Your task to perform on an android device: Open Chrome and go to the settings page Image 0: 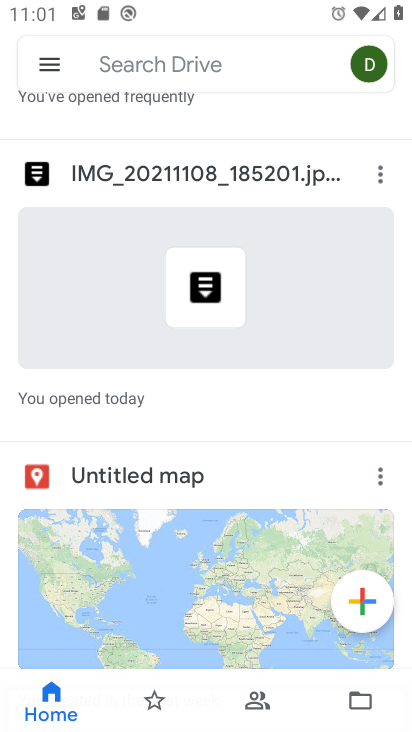
Step 0: press home button
Your task to perform on an android device: Open Chrome and go to the settings page Image 1: 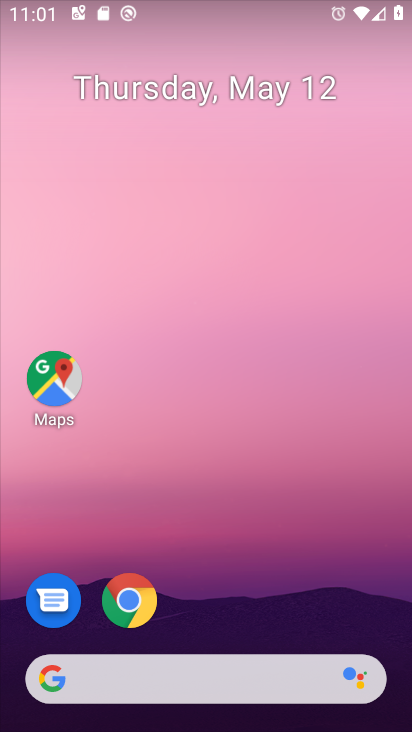
Step 1: click (126, 596)
Your task to perform on an android device: Open Chrome and go to the settings page Image 2: 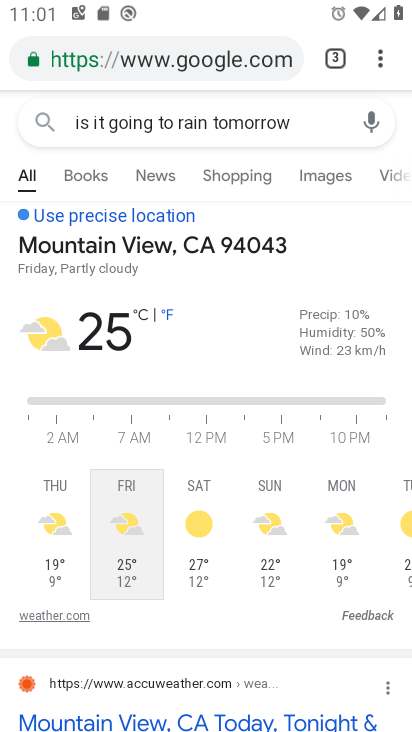
Step 2: click (385, 61)
Your task to perform on an android device: Open Chrome and go to the settings page Image 3: 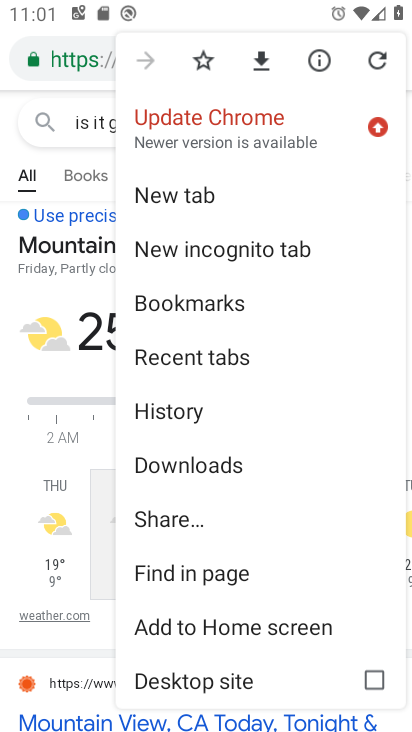
Step 3: drag from (188, 652) to (196, 319)
Your task to perform on an android device: Open Chrome and go to the settings page Image 4: 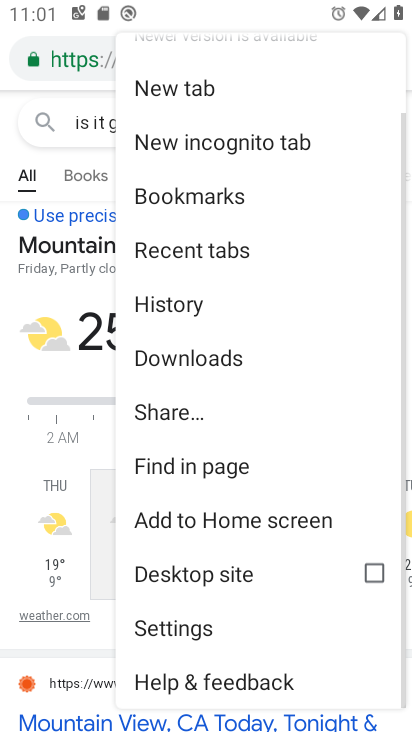
Step 4: click (183, 628)
Your task to perform on an android device: Open Chrome and go to the settings page Image 5: 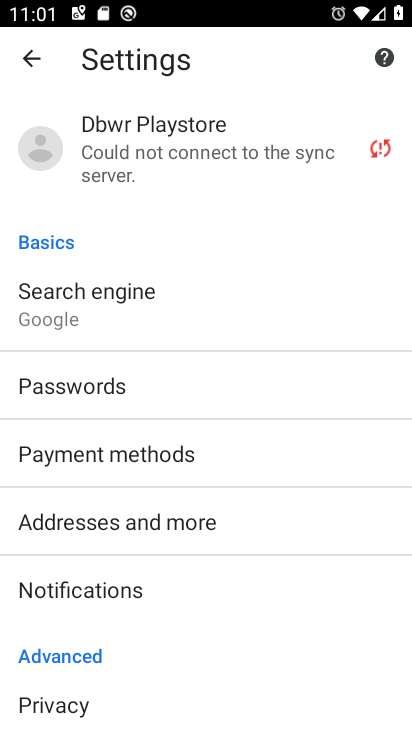
Step 5: task complete